Your task to perform on an android device: open app "LiveIn - Share Your Moment" (install if not already installed) Image 0: 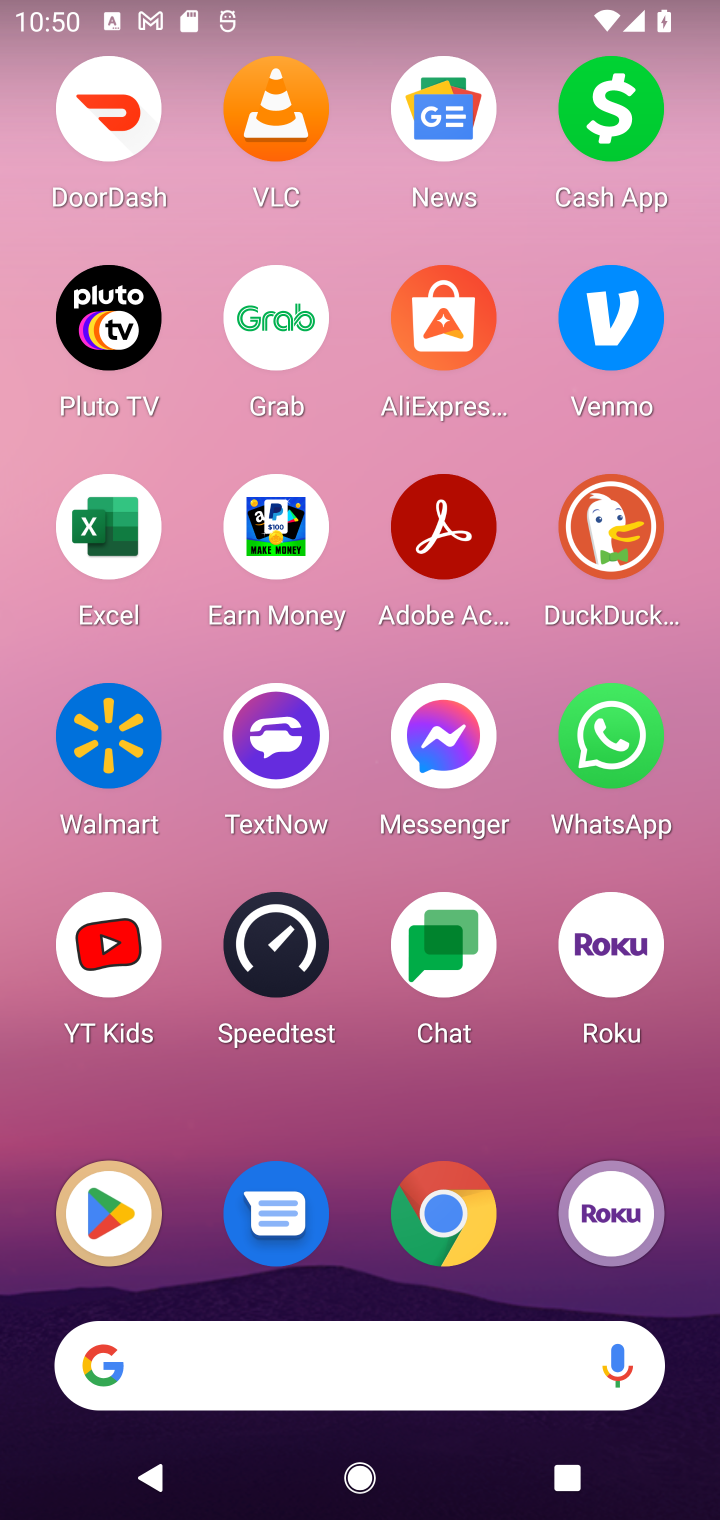
Step 0: drag from (386, 1001) to (401, 0)
Your task to perform on an android device: open app "LiveIn - Share Your Moment" (install if not already installed) Image 1: 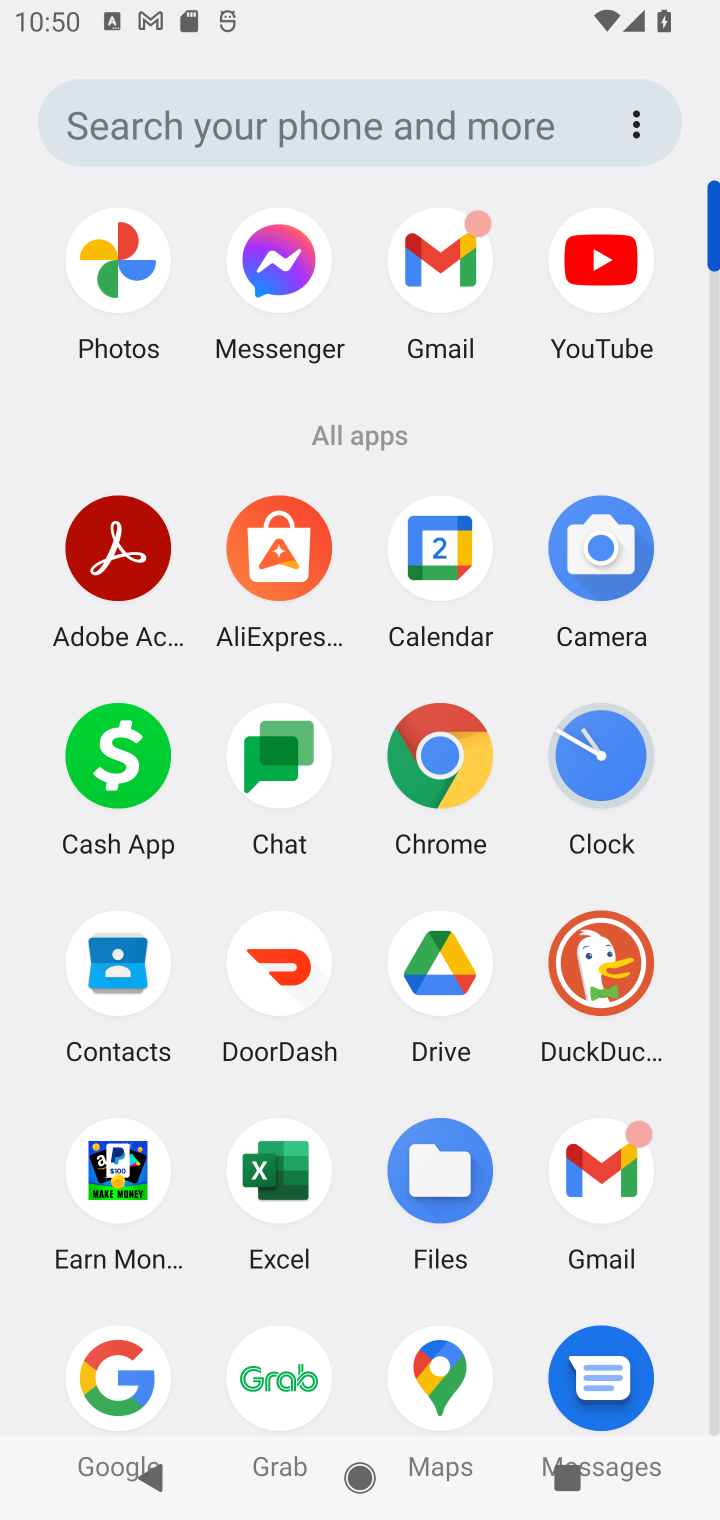
Step 1: click (254, 873)
Your task to perform on an android device: open app "LiveIn - Share Your Moment" (install if not already installed) Image 2: 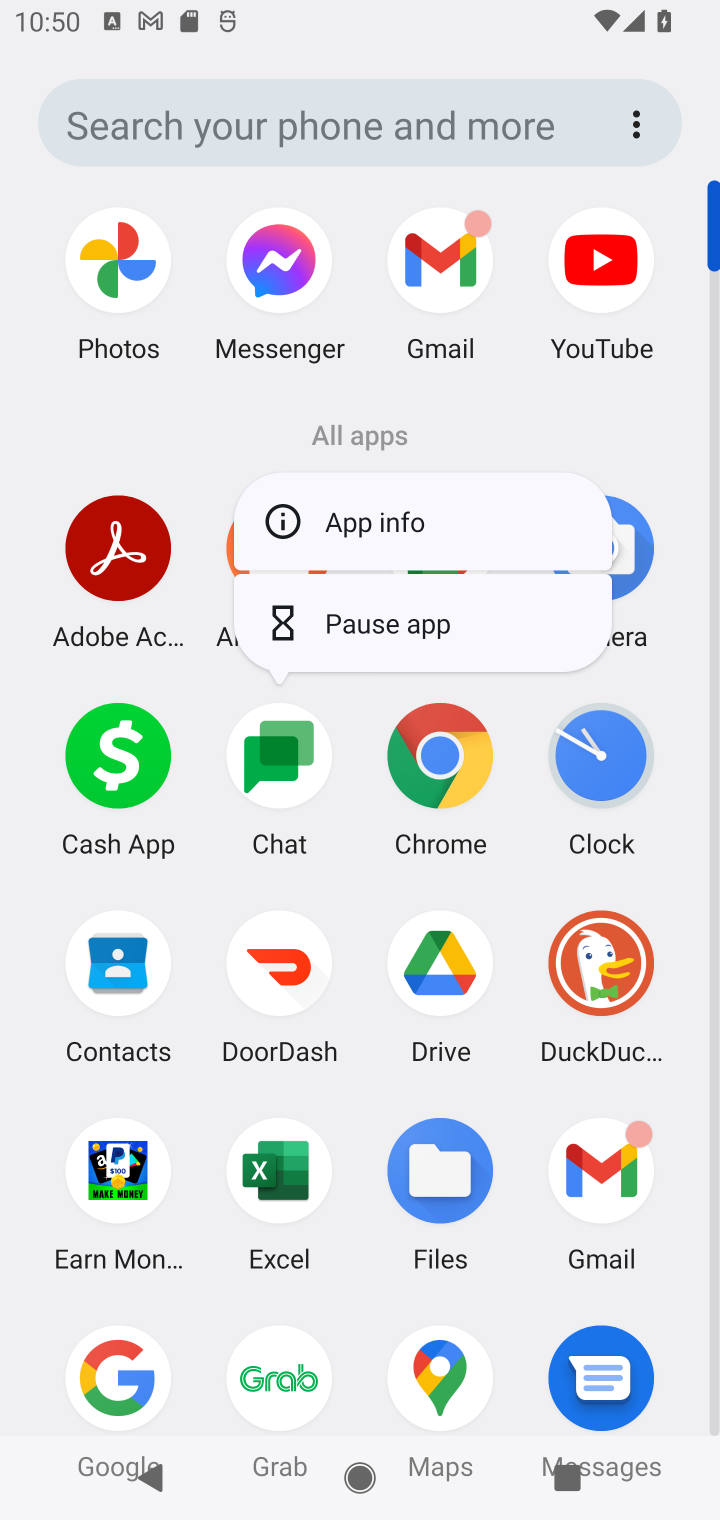
Step 2: drag from (349, 941) to (304, 496)
Your task to perform on an android device: open app "LiveIn - Share Your Moment" (install if not already installed) Image 3: 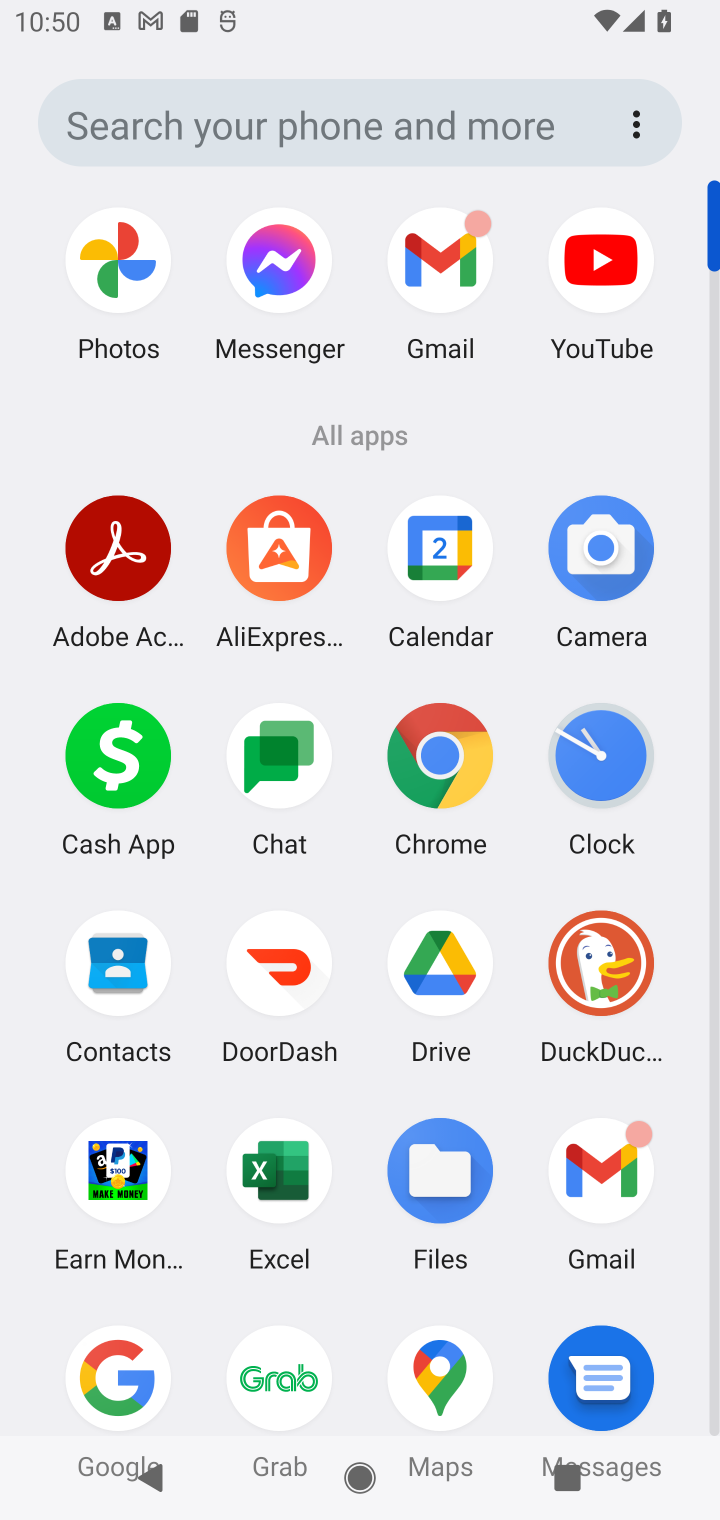
Step 3: press back button
Your task to perform on an android device: open app "LiveIn - Share Your Moment" (install if not already installed) Image 4: 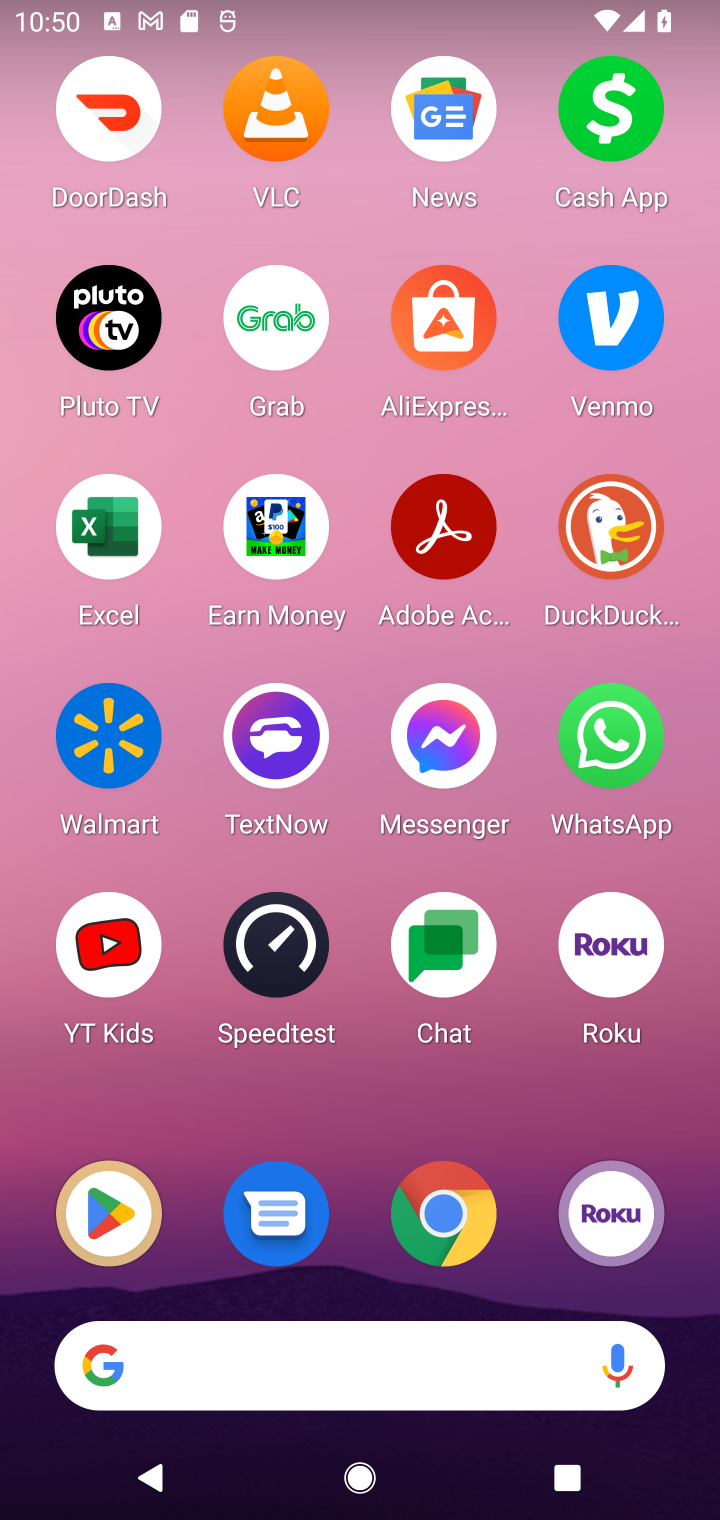
Step 4: click (134, 1219)
Your task to perform on an android device: open app "LiveIn - Share Your Moment" (install if not already installed) Image 5: 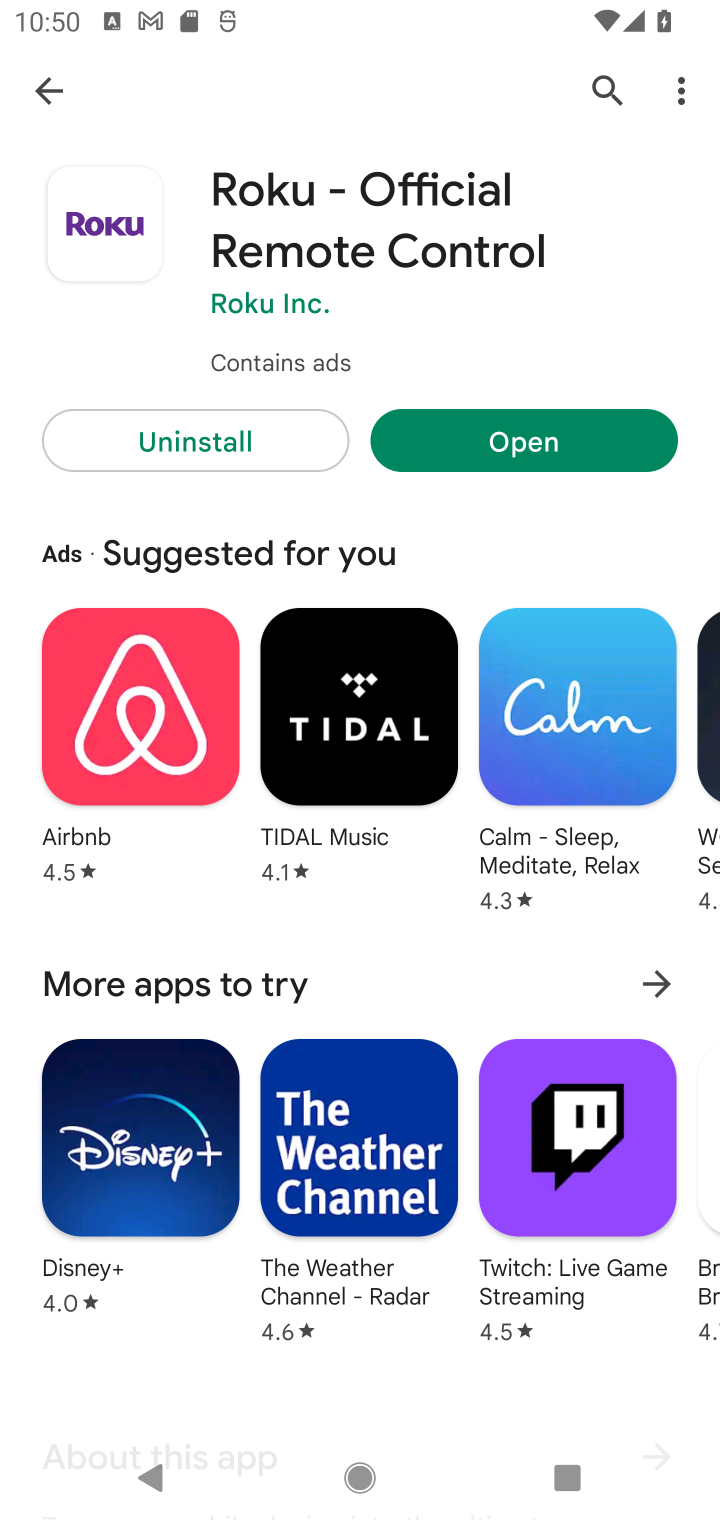
Step 5: click (53, 106)
Your task to perform on an android device: open app "LiveIn - Share Your Moment" (install if not already installed) Image 6: 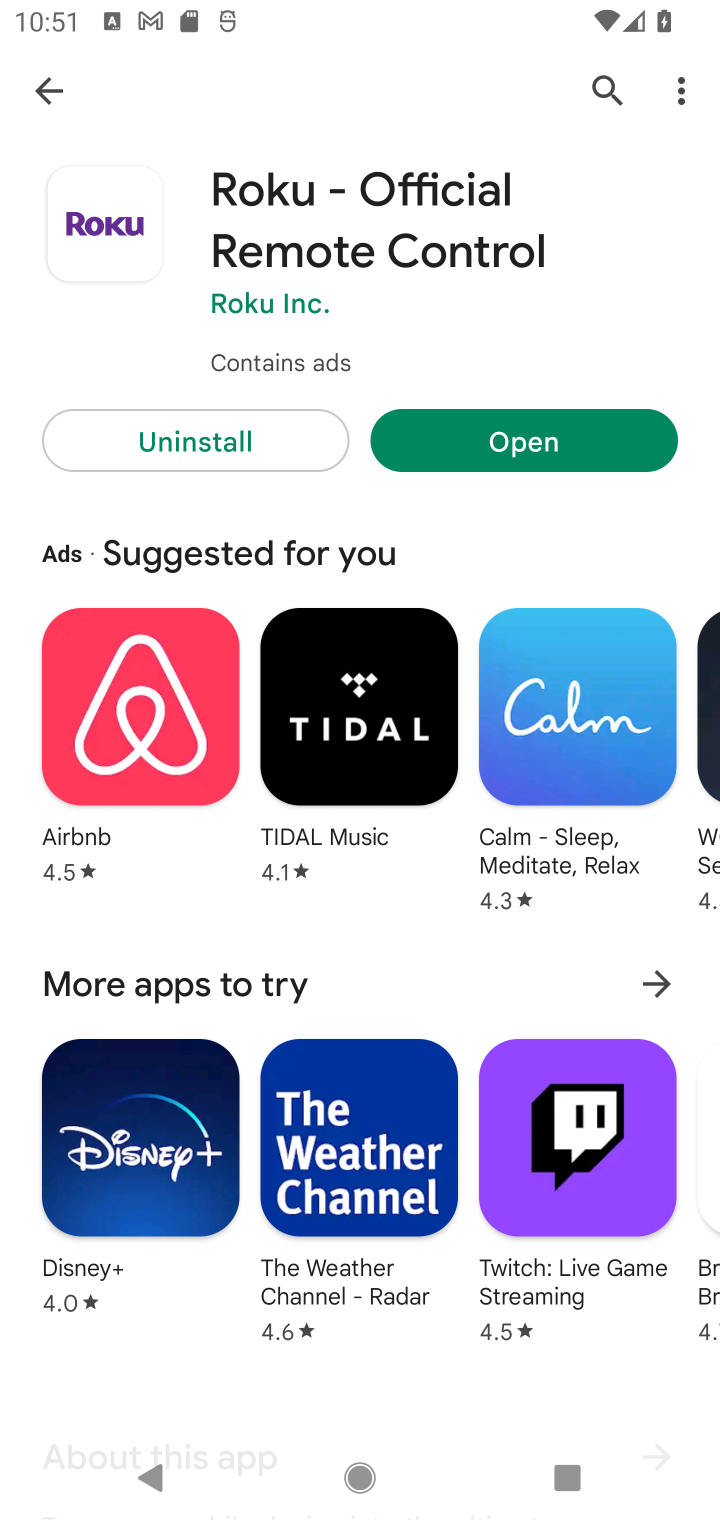
Step 6: click (52, 84)
Your task to perform on an android device: open app "LiveIn - Share Your Moment" (install if not already installed) Image 7: 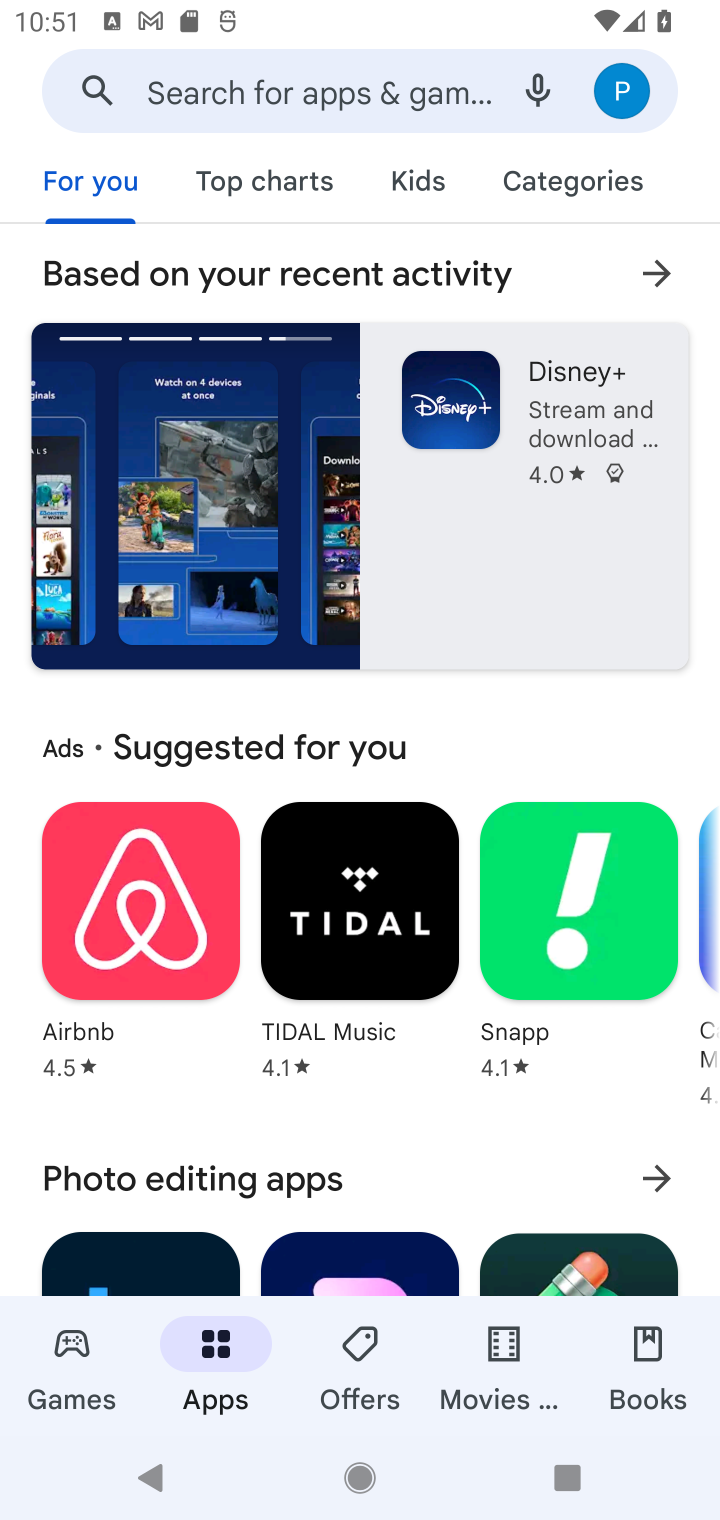
Step 7: click (177, 74)
Your task to perform on an android device: open app "LiveIn - Share Your Moment" (install if not already installed) Image 8: 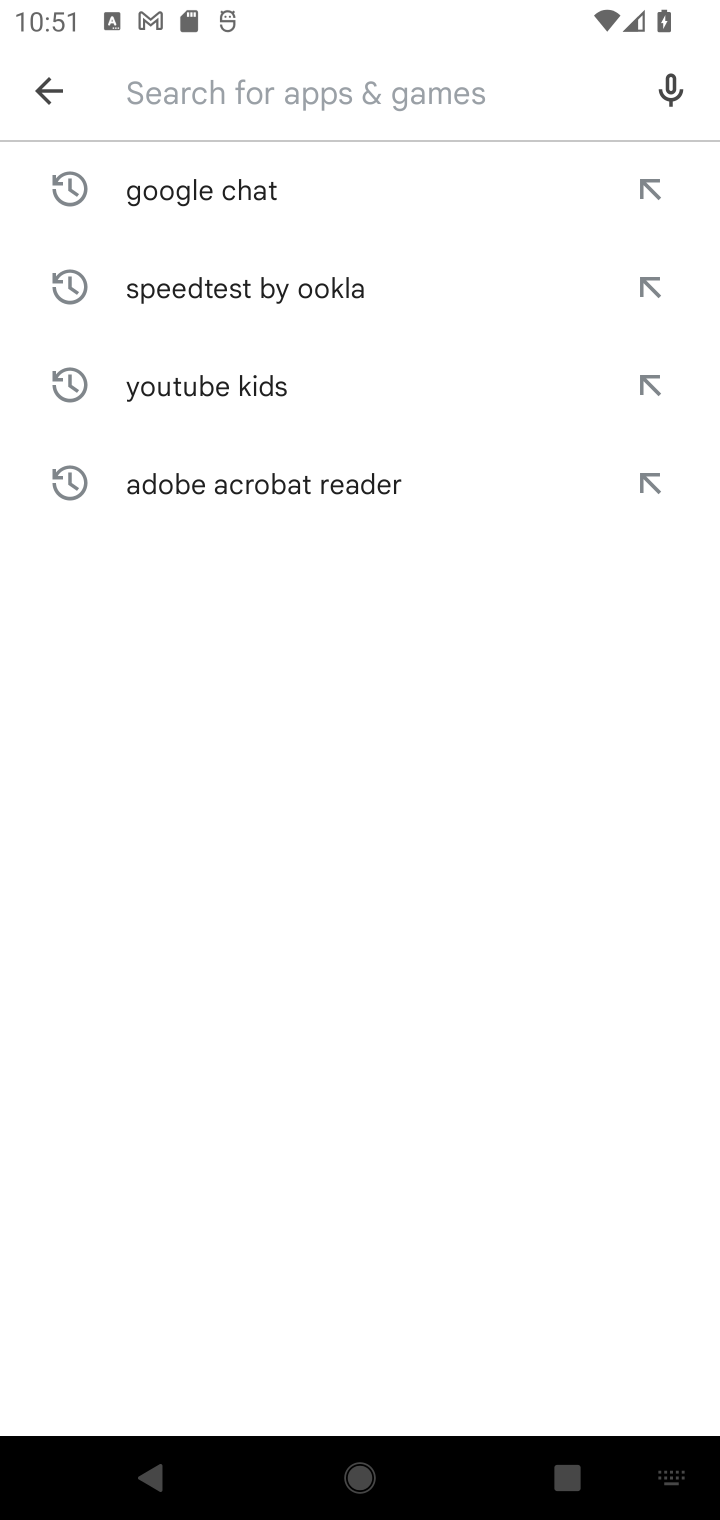
Step 8: type "LiveIn - Share Your Moment"
Your task to perform on an android device: open app "LiveIn - Share Your Moment" (install if not already installed) Image 9: 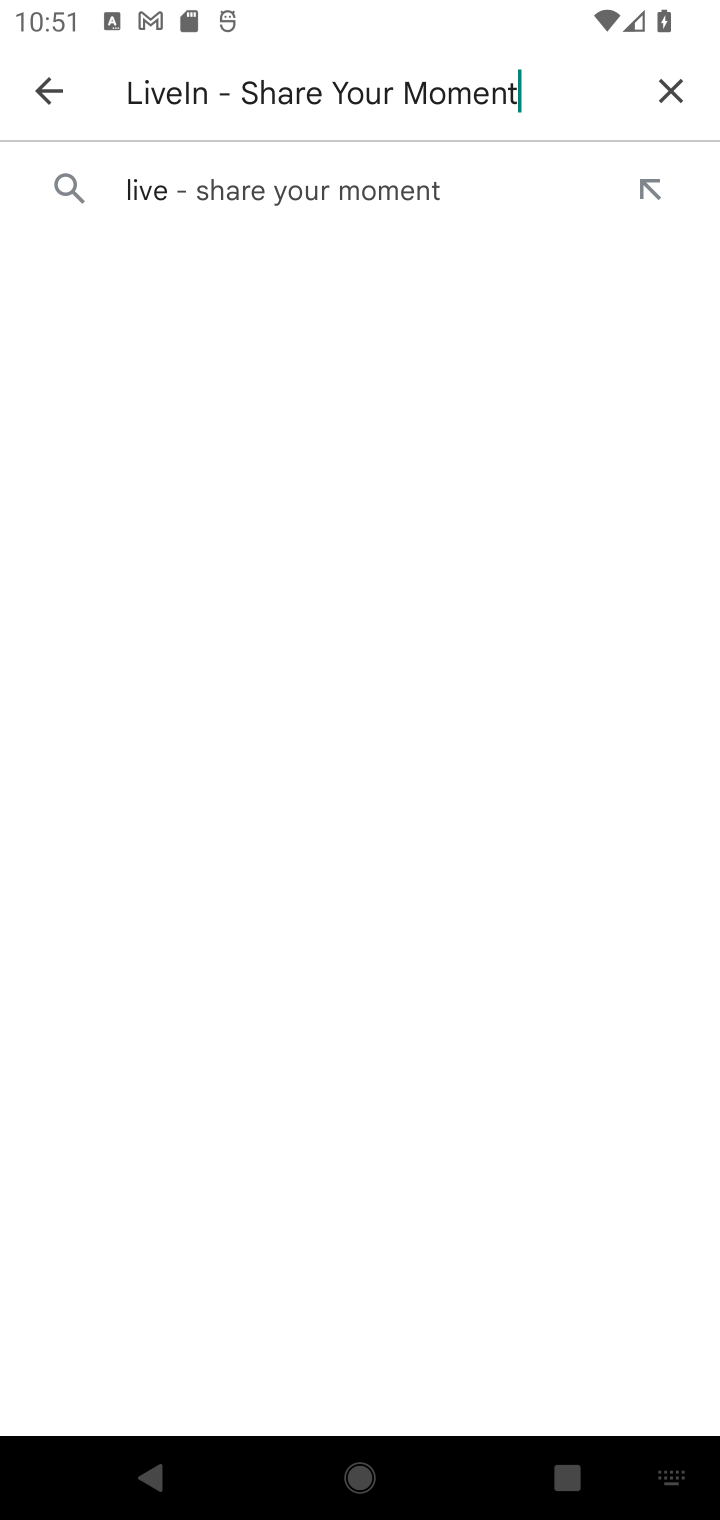
Step 9: click (301, 184)
Your task to perform on an android device: open app "LiveIn - Share Your Moment" (install if not already installed) Image 10: 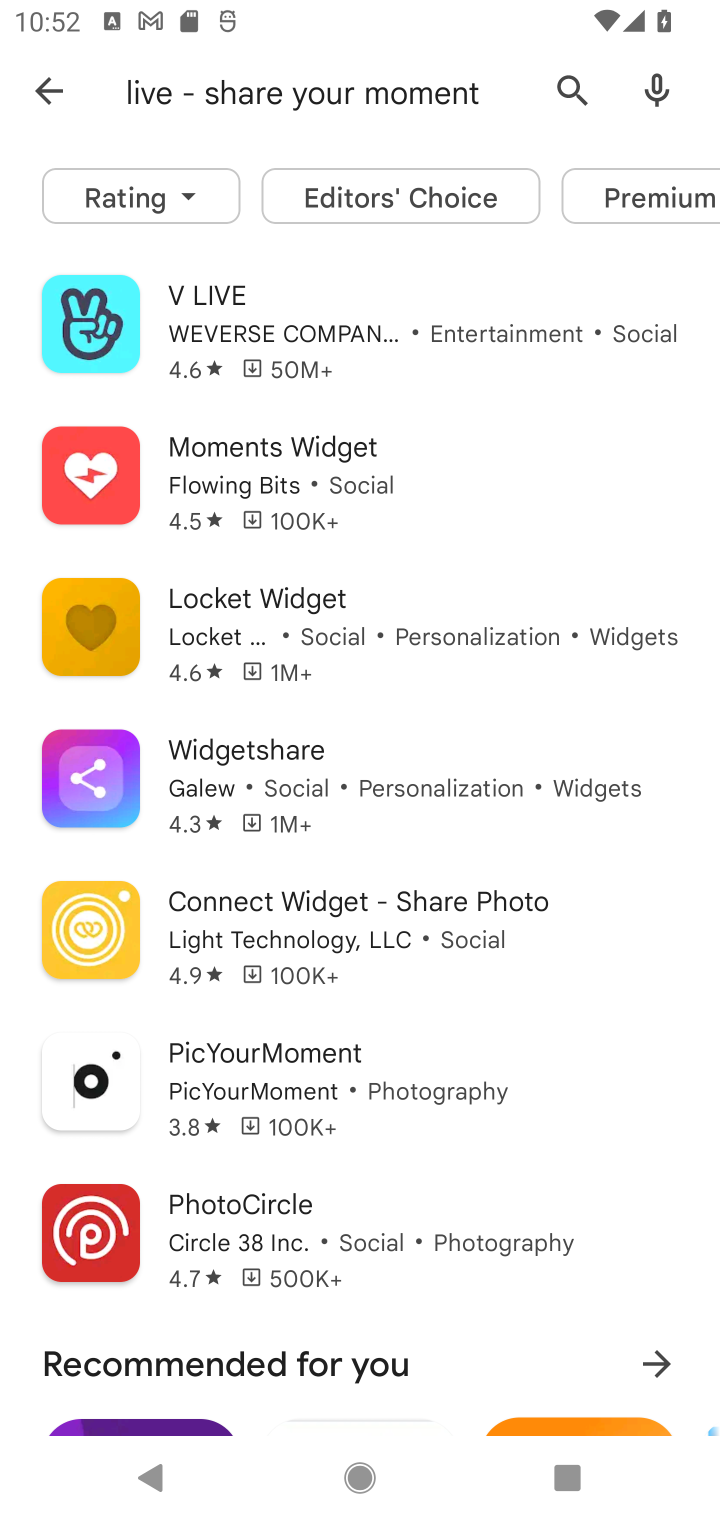
Step 10: task complete